Your task to perform on an android device: manage bookmarks in the chrome app Image 0: 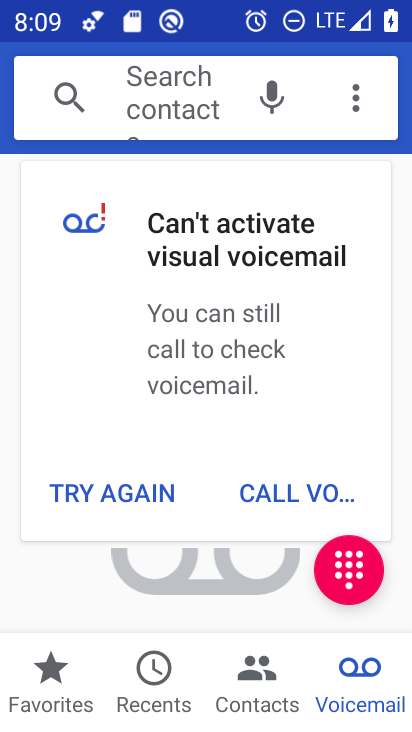
Step 0: press home button
Your task to perform on an android device: manage bookmarks in the chrome app Image 1: 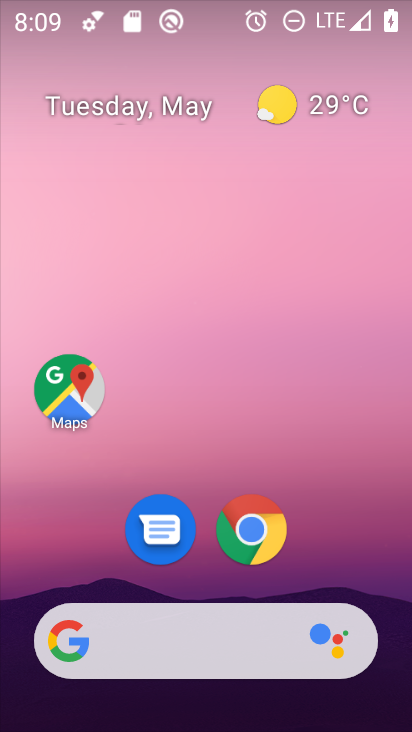
Step 1: drag from (401, 623) to (252, 73)
Your task to perform on an android device: manage bookmarks in the chrome app Image 2: 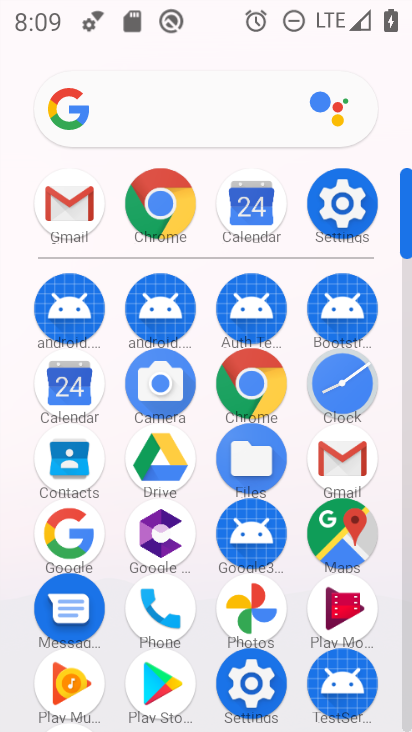
Step 2: click (262, 382)
Your task to perform on an android device: manage bookmarks in the chrome app Image 3: 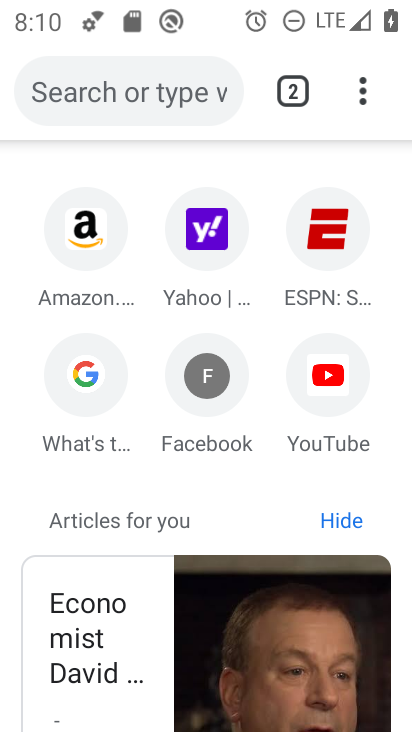
Step 3: click (370, 88)
Your task to perform on an android device: manage bookmarks in the chrome app Image 4: 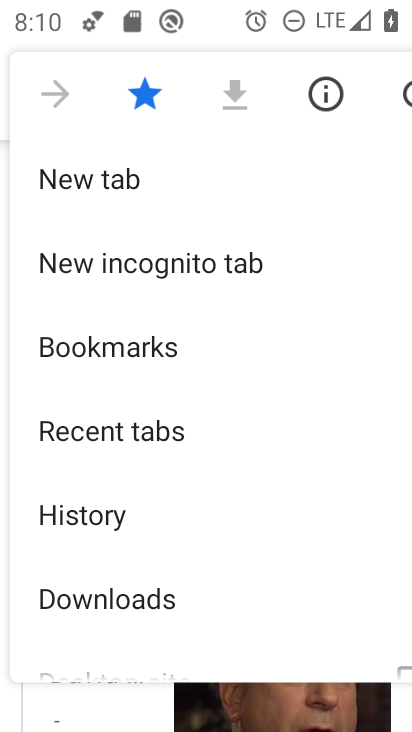
Step 4: click (146, 345)
Your task to perform on an android device: manage bookmarks in the chrome app Image 5: 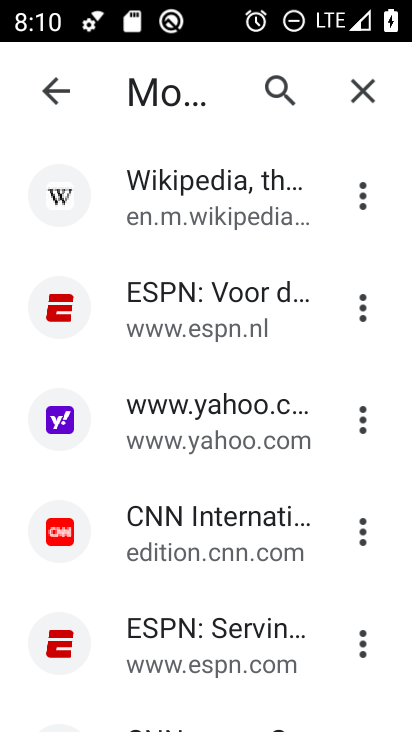
Step 5: task complete